Your task to perform on an android device: Go to location settings Image 0: 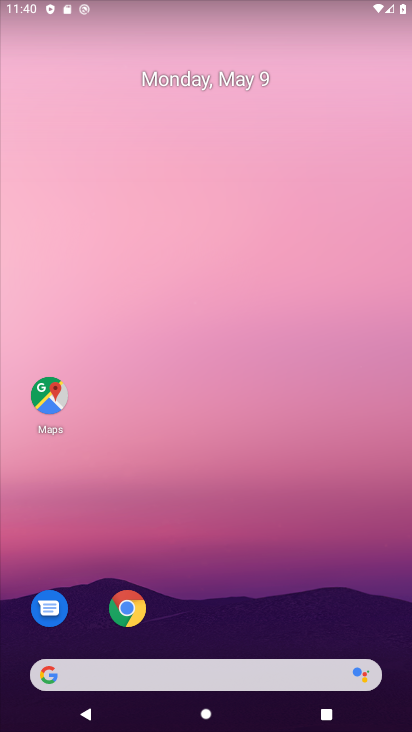
Step 0: drag from (237, 574) to (237, 80)
Your task to perform on an android device: Go to location settings Image 1: 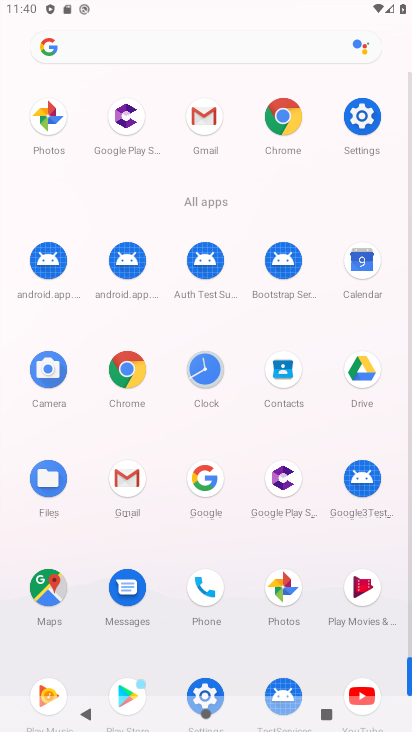
Step 1: click (202, 686)
Your task to perform on an android device: Go to location settings Image 2: 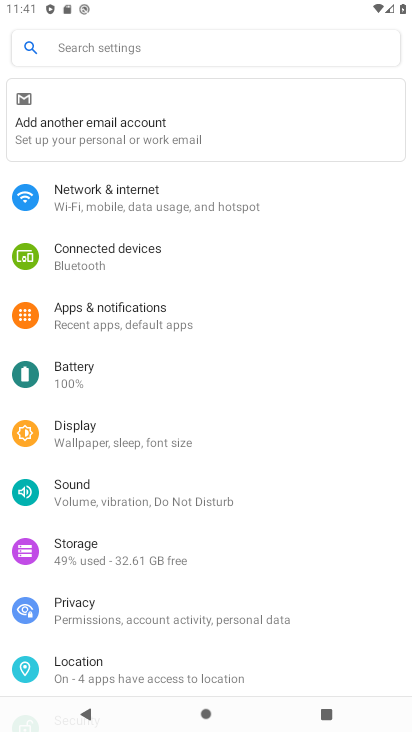
Step 2: click (133, 661)
Your task to perform on an android device: Go to location settings Image 3: 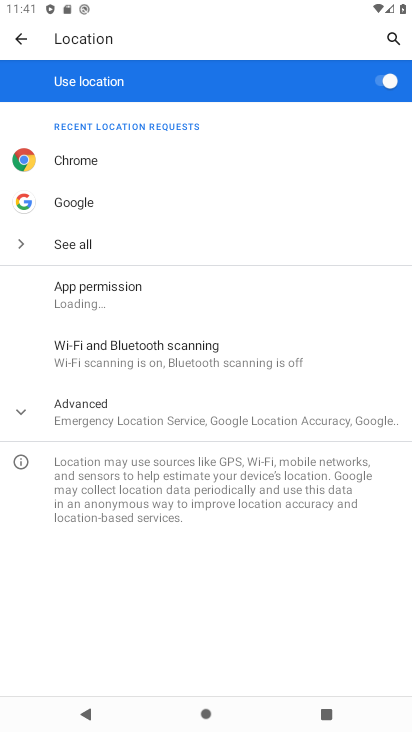
Step 3: click (85, 428)
Your task to perform on an android device: Go to location settings Image 4: 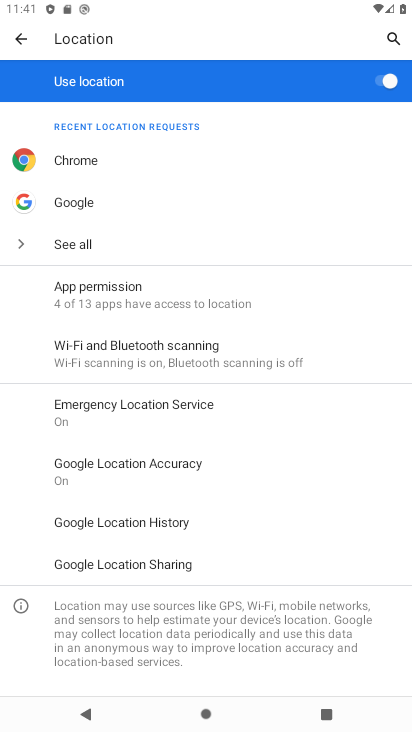
Step 4: task complete